Your task to perform on an android device: Open the Play Movies app and select the watchlist tab. Image 0: 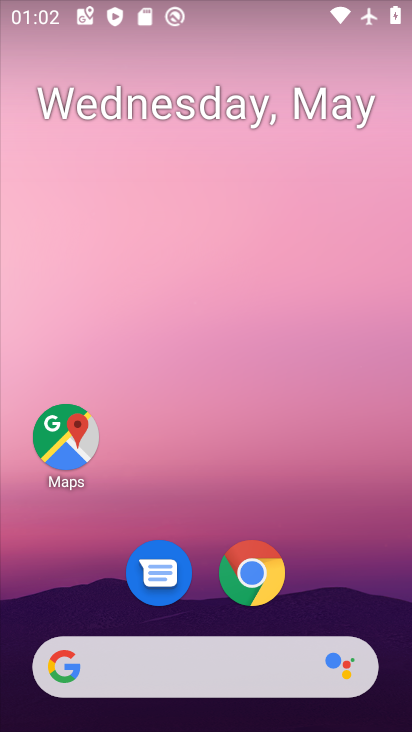
Step 0: drag from (300, 646) to (303, 271)
Your task to perform on an android device: Open the Play Movies app and select the watchlist tab. Image 1: 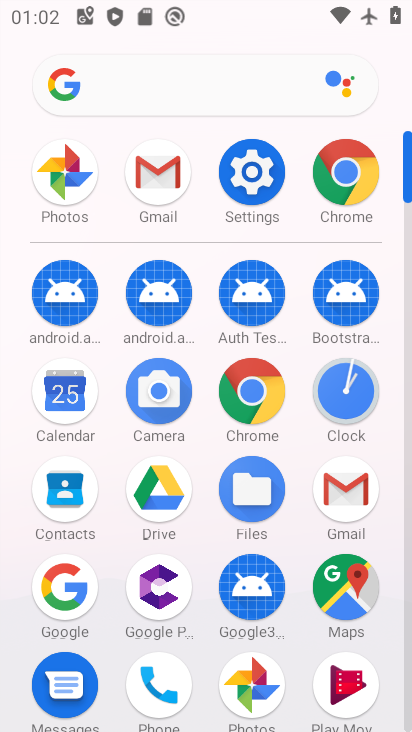
Step 1: click (346, 694)
Your task to perform on an android device: Open the Play Movies app and select the watchlist tab. Image 2: 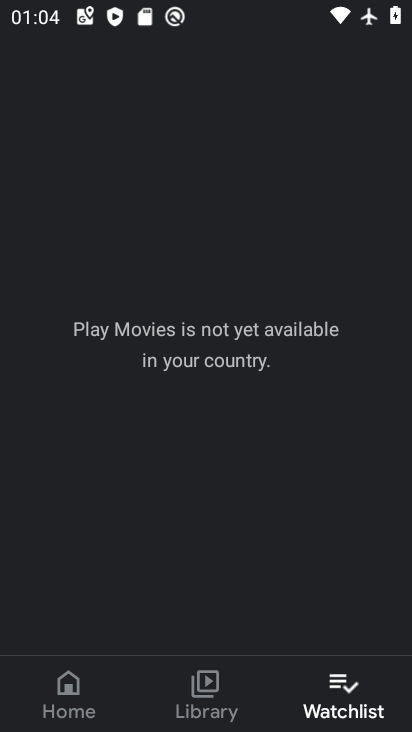
Step 2: task complete